Your task to perform on an android device: turn notification dots off Image 0: 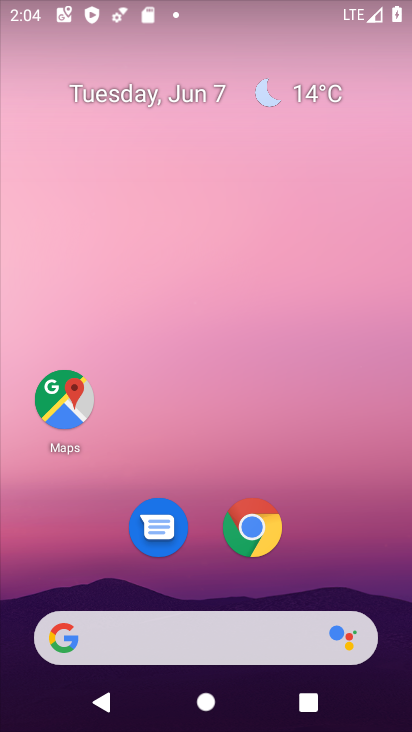
Step 0: drag from (383, 579) to (246, 187)
Your task to perform on an android device: turn notification dots off Image 1: 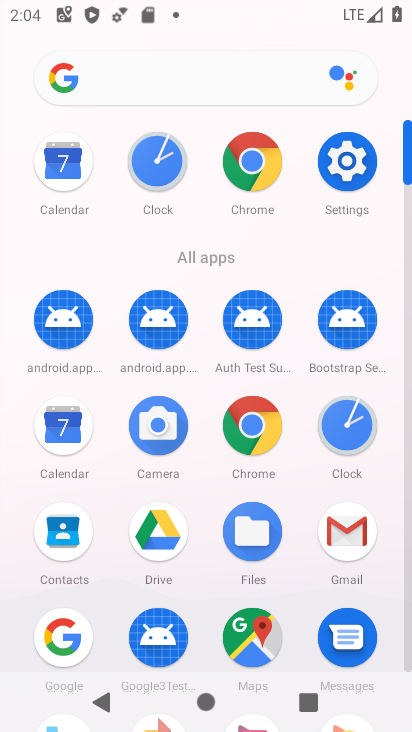
Step 1: click (356, 178)
Your task to perform on an android device: turn notification dots off Image 2: 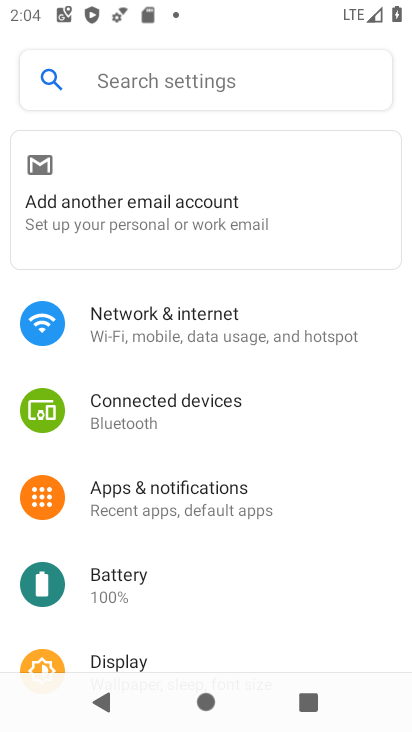
Step 2: click (286, 508)
Your task to perform on an android device: turn notification dots off Image 3: 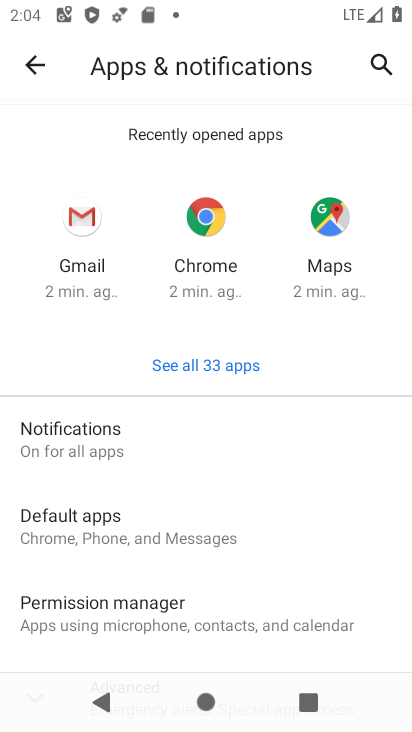
Step 3: click (222, 435)
Your task to perform on an android device: turn notification dots off Image 4: 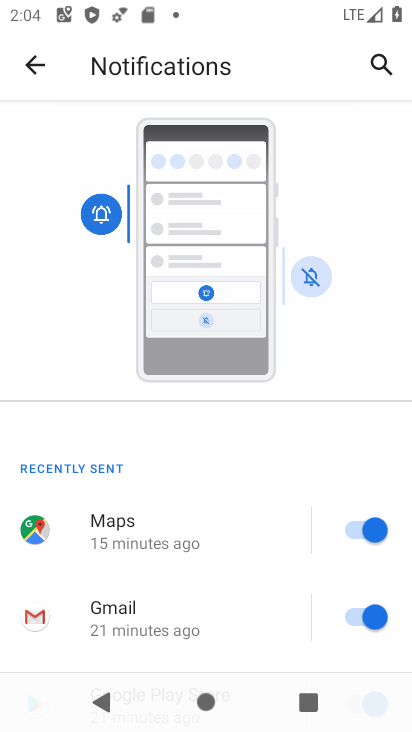
Step 4: drag from (252, 655) to (209, 91)
Your task to perform on an android device: turn notification dots off Image 5: 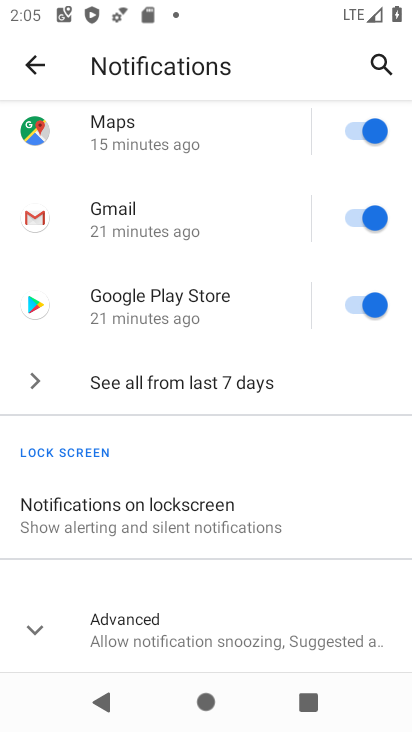
Step 5: click (255, 638)
Your task to perform on an android device: turn notification dots off Image 6: 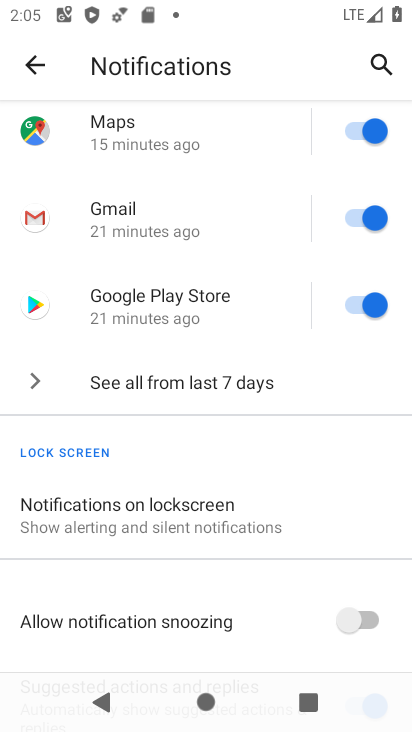
Step 6: drag from (250, 574) to (244, 62)
Your task to perform on an android device: turn notification dots off Image 7: 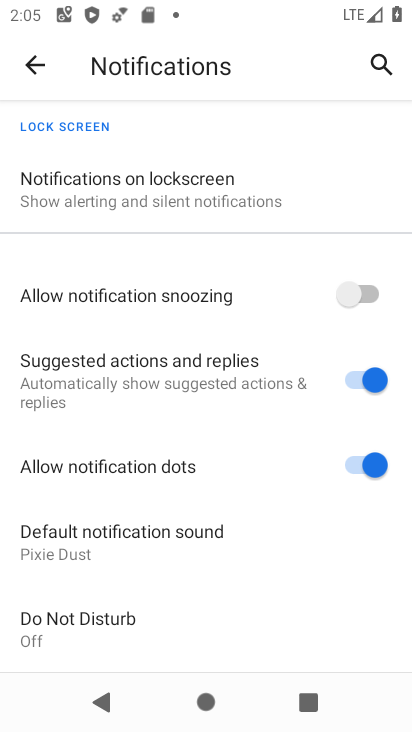
Step 7: click (360, 464)
Your task to perform on an android device: turn notification dots off Image 8: 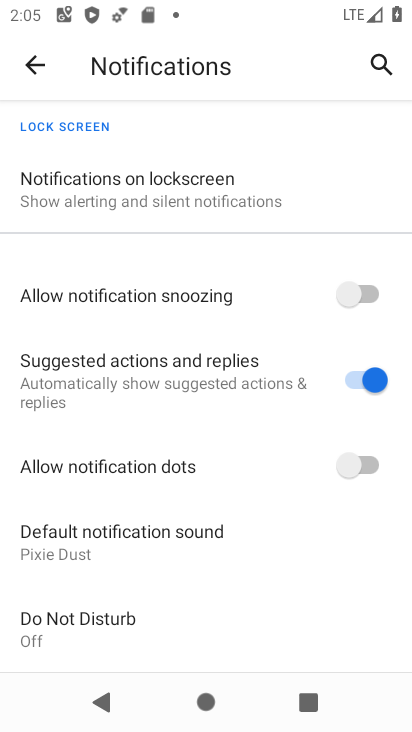
Step 8: task complete